Your task to perform on an android device: Go to internet settings Image 0: 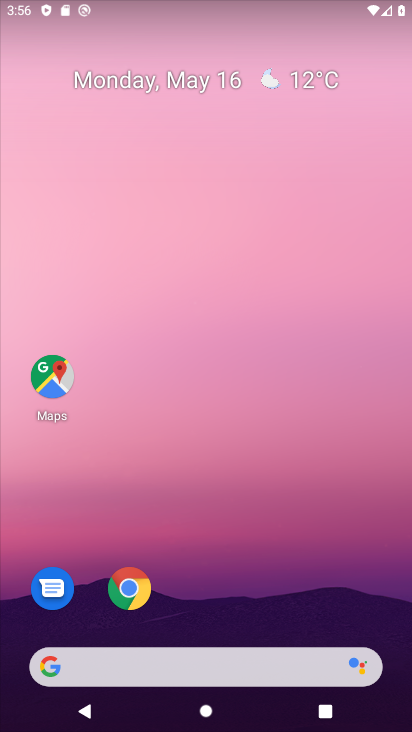
Step 0: drag from (260, 260) to (243, 50)
Your task to perform on an android device: Go to internet settings Image 1: 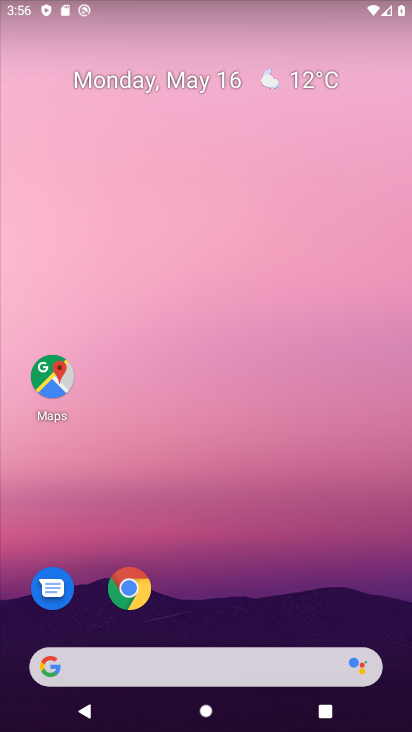
Step 1: drag from (238, 560) to (188, 30)
Your task to perform on an android device: Go to internet settings Image 2: 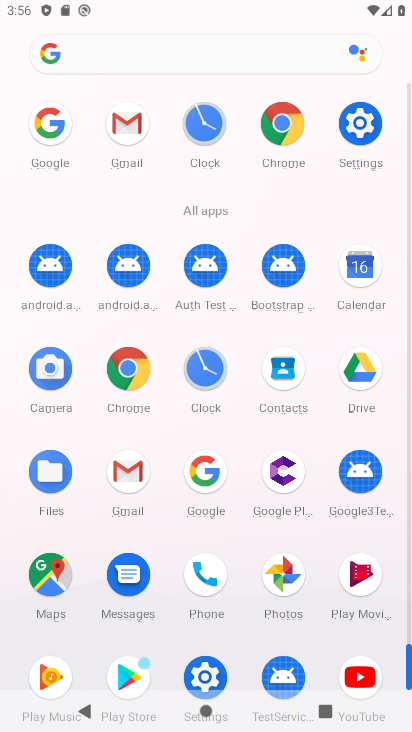
Step 2: click (366, 120)
Your task to perform on an android device: Go to internet settings Image 3: 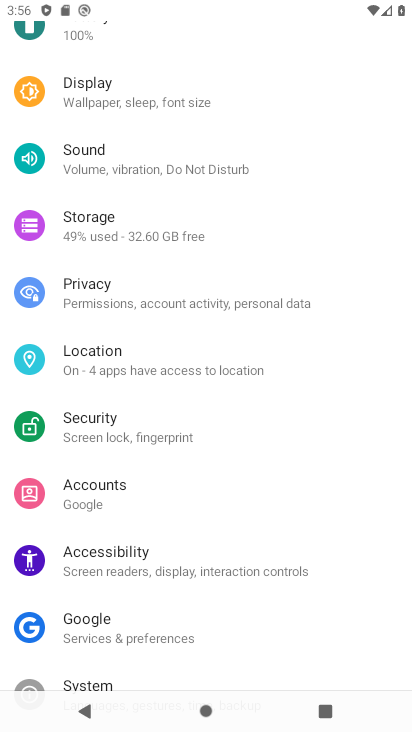
Step 3: drag from (269, 101) to (311, 612)
Your task to perform on an android device: Go to internet settings Image 4: 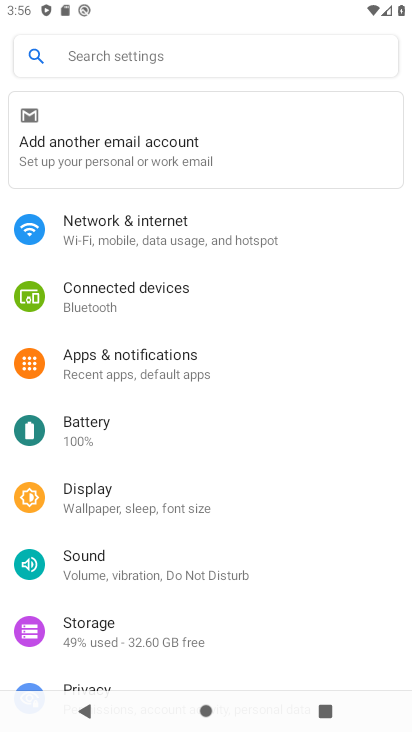
Step 4: click (209, 231)
Your task to perform on an android device: Go to internet settings Image 5: 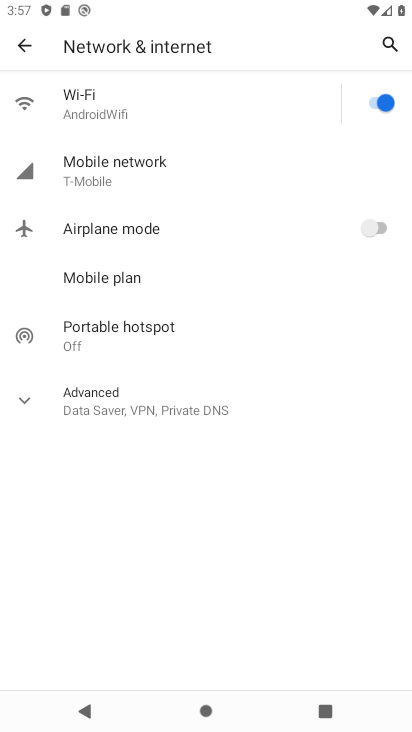
Step 5: task complete